Your task to perform on an android device: Open sound settings Image 0: 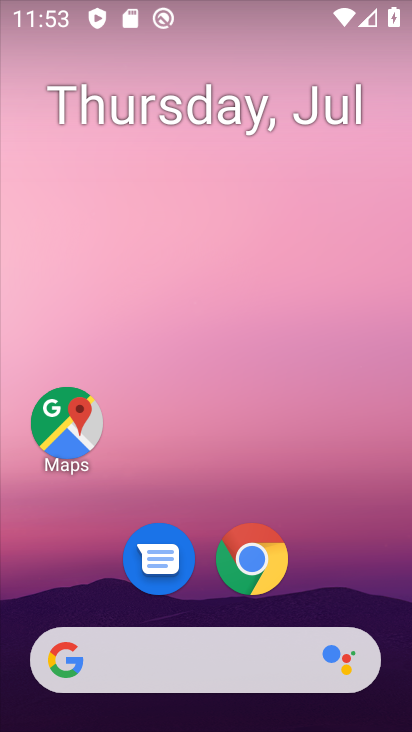
Step 0: press home button
Your task to perform on an android device: Open sound settings Image 1: 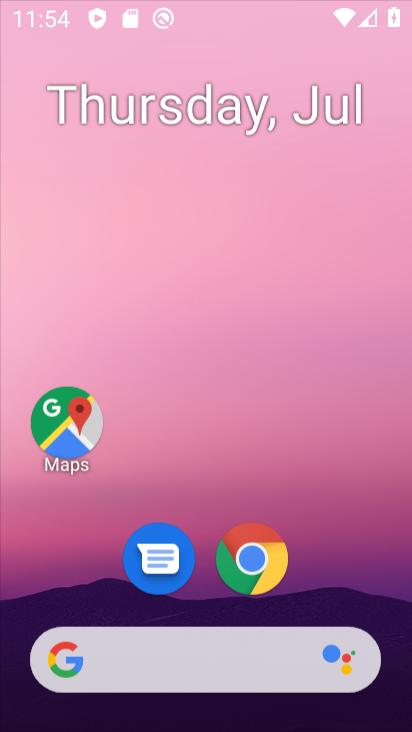
Step 1: drag from (347, 560) to (361, 146)
Your task to perform on an android device: Open sound settings Image 2: 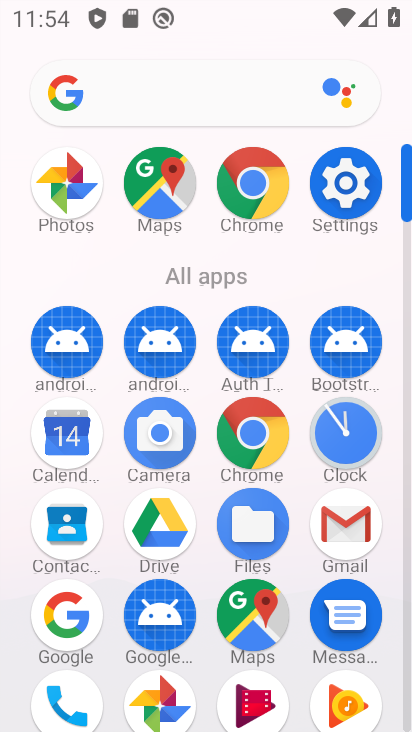
Step 2: click (350, 200)
Your task to perform on an android device: Open sound settings Image 3: 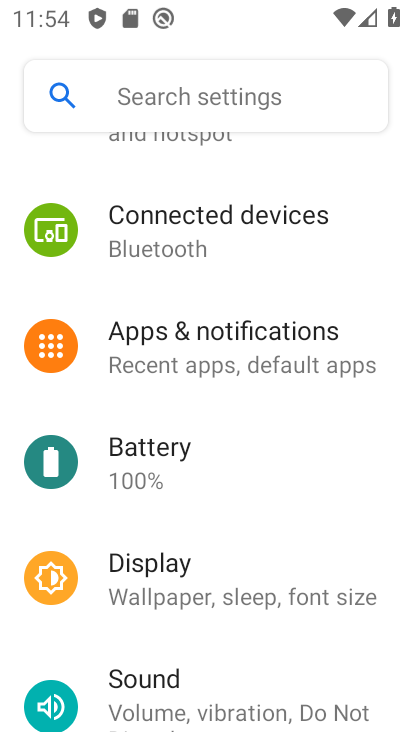
Step 3: drag from (353, 201) to (354, 306)
Your task to perform on an android device: Open sound settings Image 4: 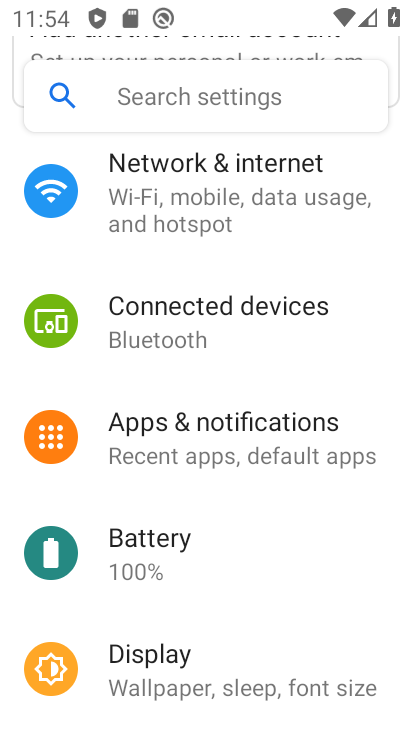
Step 4: drag from (380, 168) to (376, 294)
Your task to perform on an android device: Open sound settings Image 5: 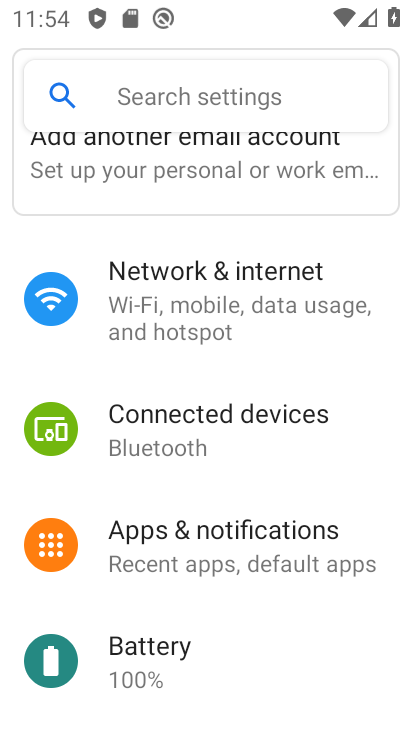
Step 5: drag from (374, 389) to (372, 325)
Your task to perform on an android device: Open sound settings Image 6: 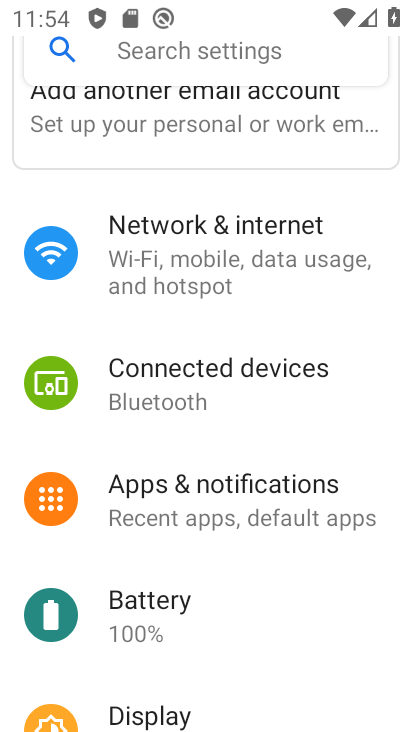
Step 6: drag from (391, 523) to (388, 440)
Your task to perform on an android device: Open sound settings Image 7: 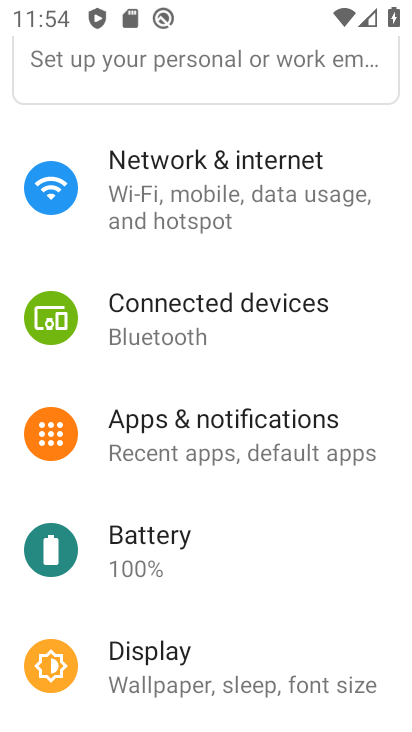
Step 7: drag from (370, 510) to (366, 398)
Your task to perform on an android device: Open sound settings Image 8: 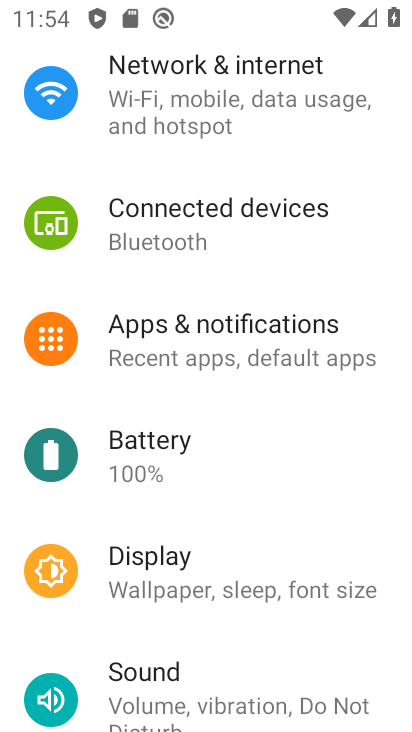
Step 8: drag from (339, 476) to (342, 359)
Your task to perform on an android device: Open sound settings Image 9: 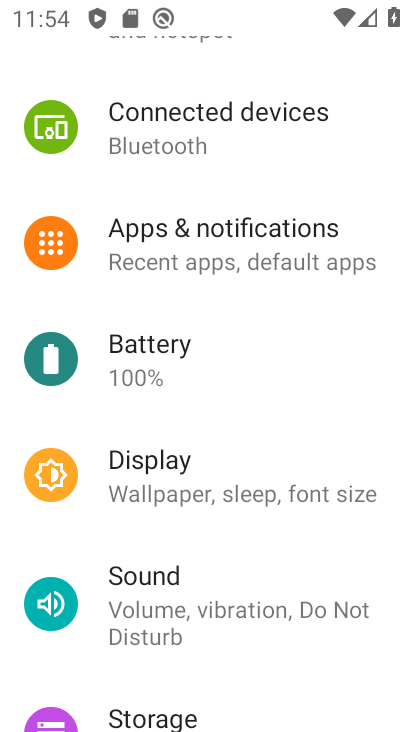
Step 9: drag from (300, 546) to (312, 345)
Your task to perform on an android device: Open sound settings Image 10: 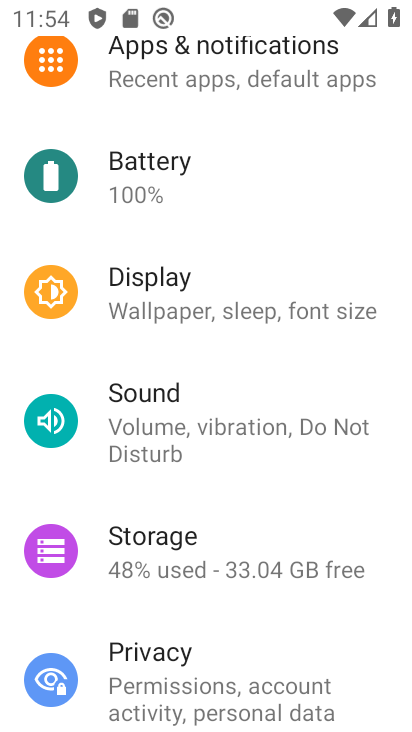
Step 10: click (288, 432)
Your task to perform on an android device: Open sound settings Image 11: 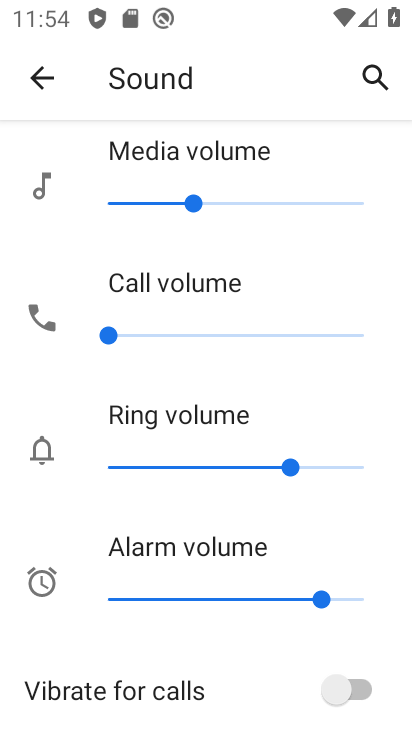
Step 11: drag from (361, 534) to (377, 435)
Your task to perform on an android device: Open sound settings Image 12: 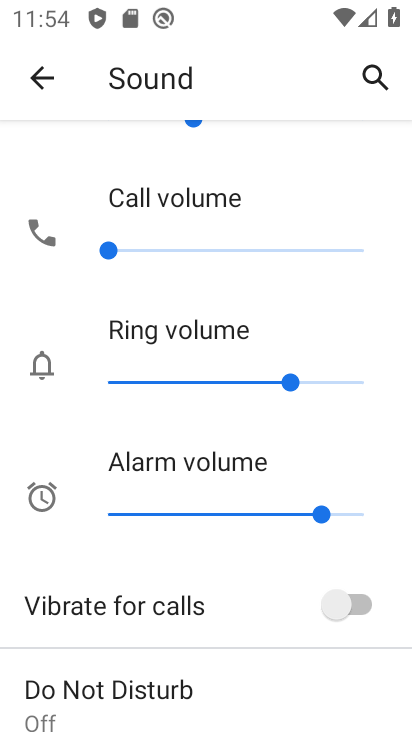
Step 12: drag from (381, 532) to (393, 427)
Your task to perform on an android device: Open sound settings Image 13: 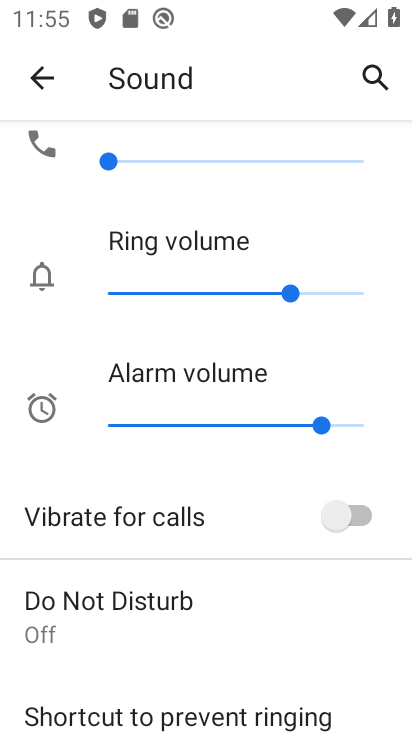
Step 13: drag from (362, 614) to (360, 383)
Your task to perform on an android device: Open sound settings Image 14: 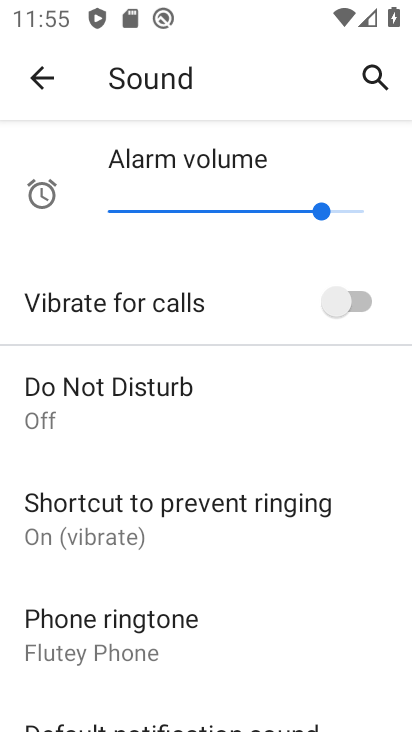
Step 14: drag from (348, 618) to (348, 490)
Your task to perform on an android device: Open sound settings Image 15: 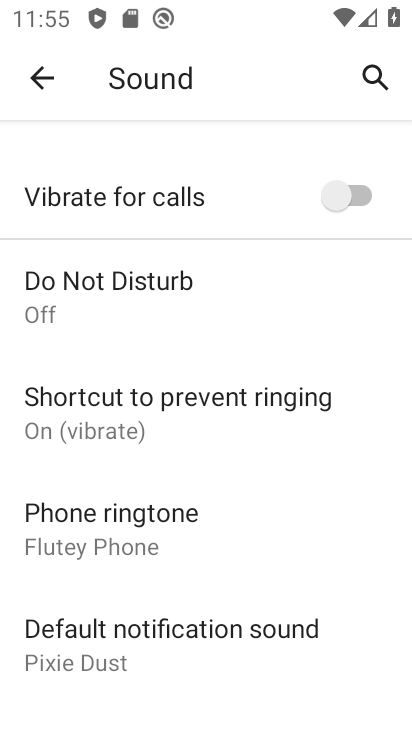
Step 15: click (349, 488)
Your task to perform on an android device: Open sound settings Image 16: 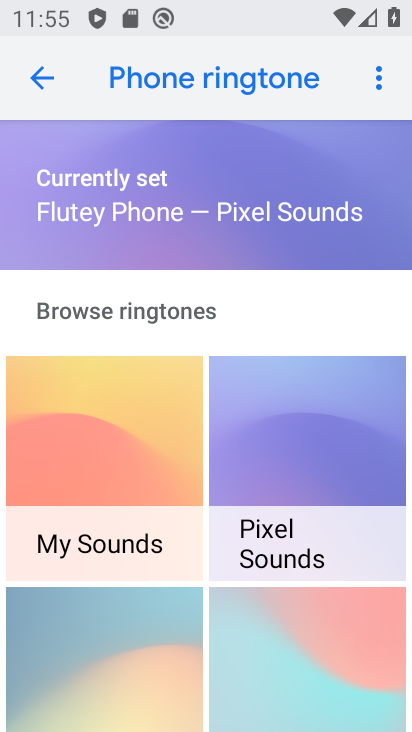
Step 16: task complete